Your task to perform on an android device: empty trash in google photos Image 0: 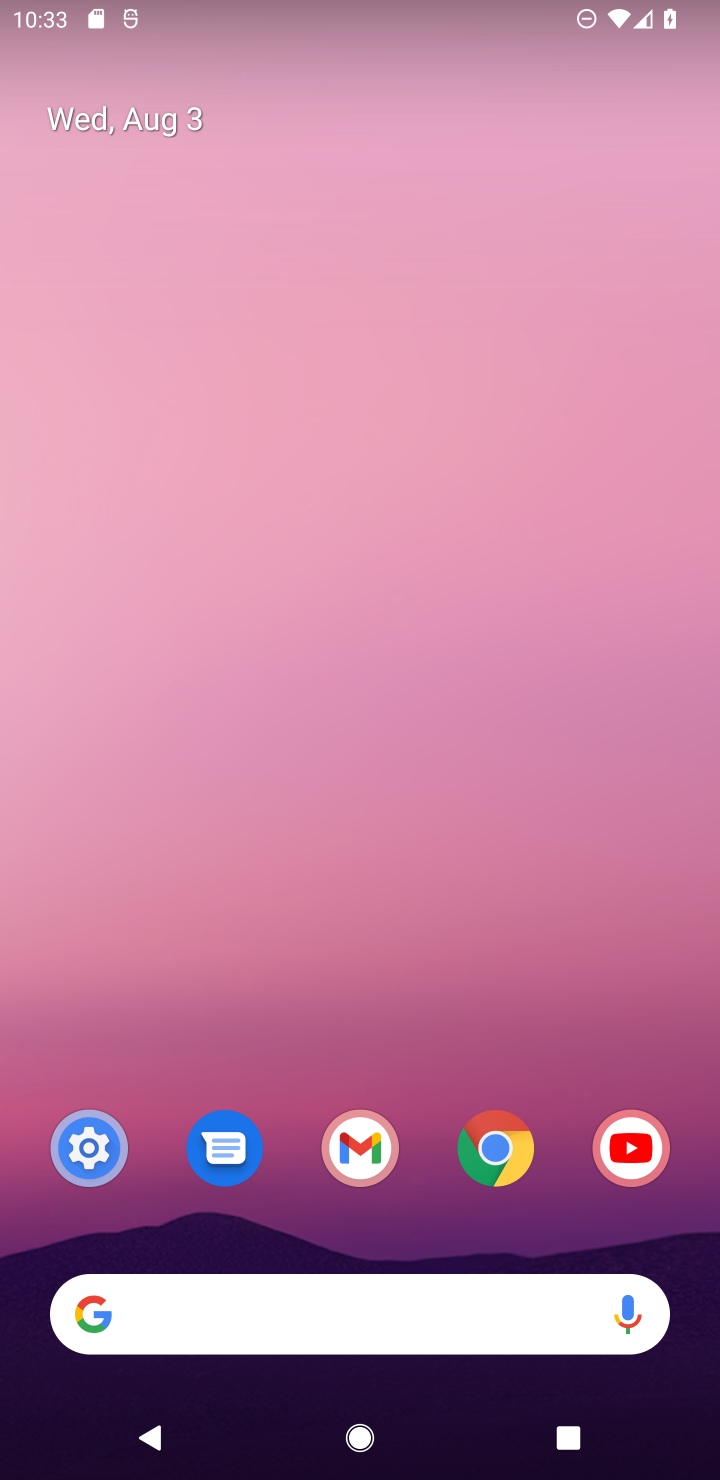
Step 0: drag from (514, 733) to (410, 124)
Your task to perform on an android device: empty trash in google photos Image 1: 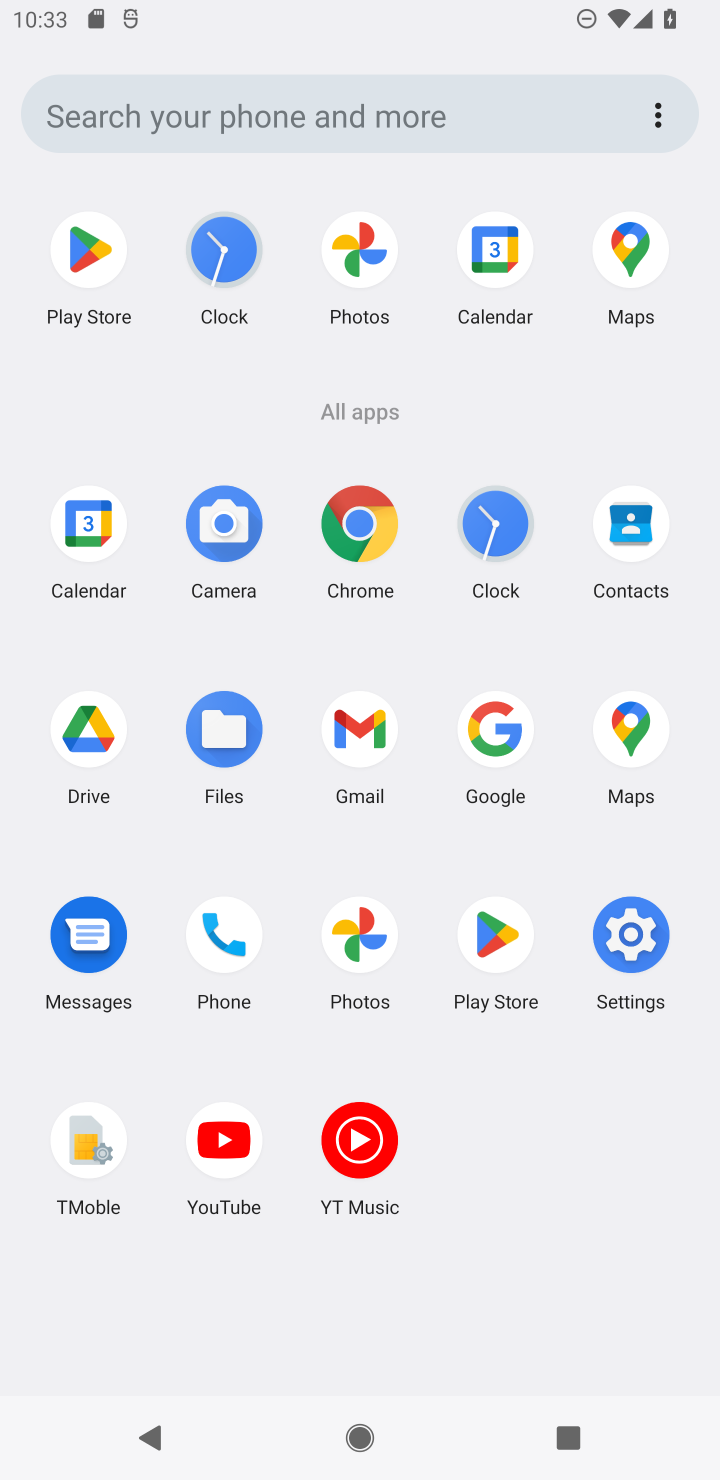
Step 1: click (374, 926)
Your task to perform on an android device: empty trash in google photos Image 2: 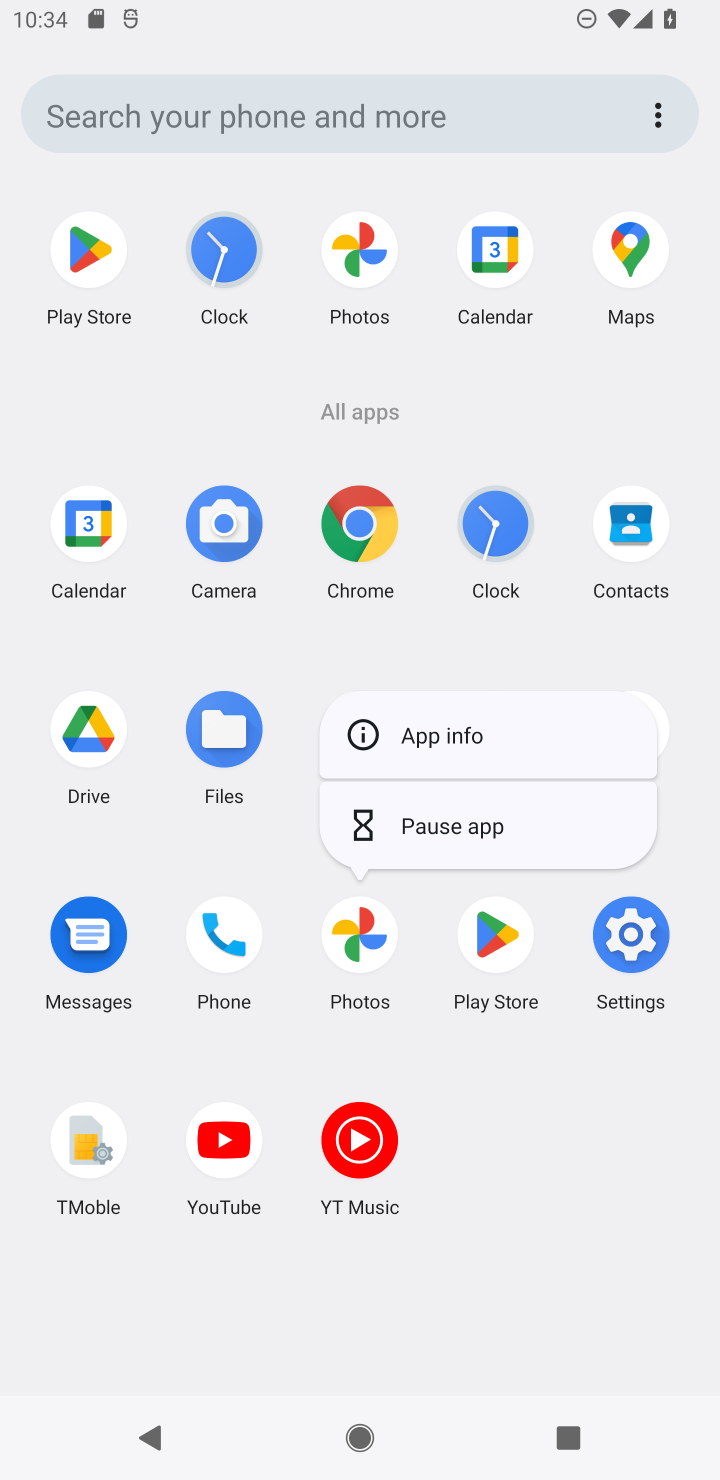
Step 2: click (350, 917)
Your task to perform on an android device: empty trash in google photos Image 3: 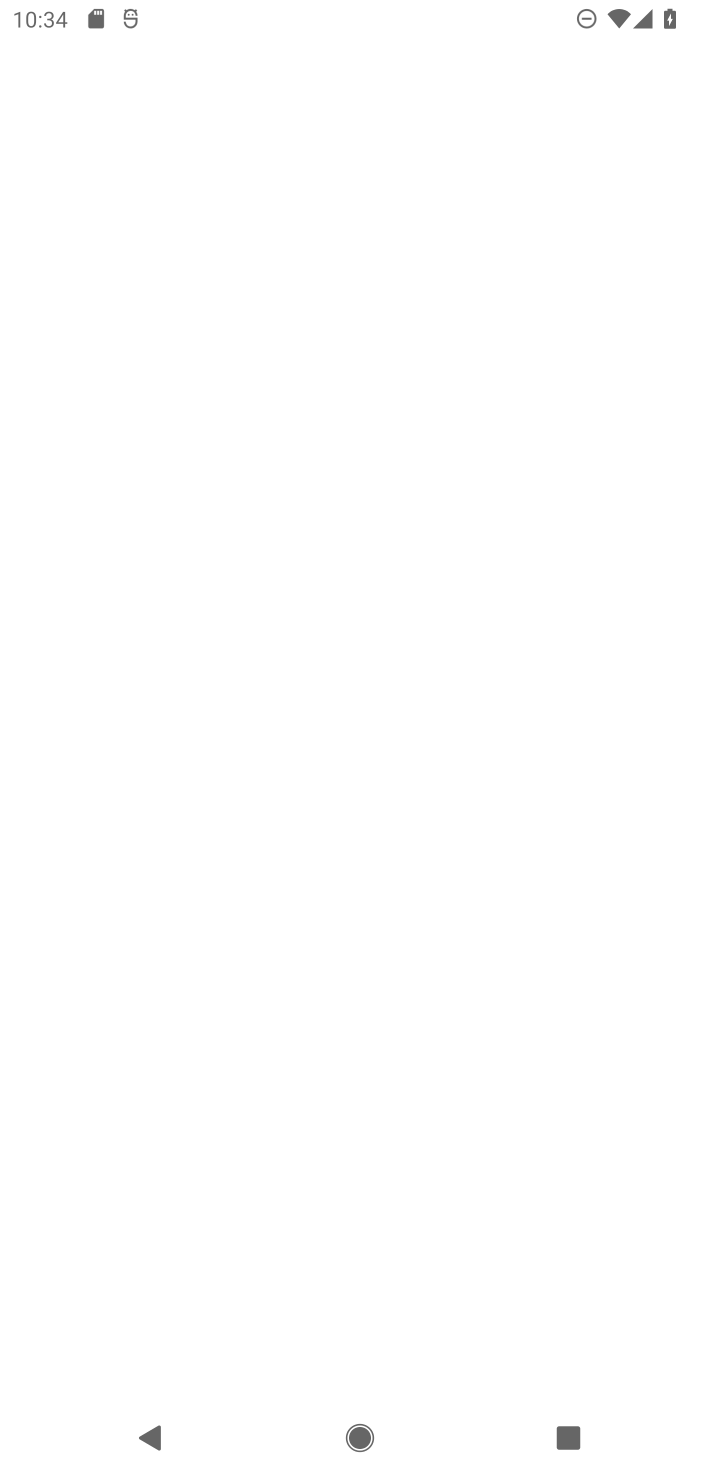
Step 3: task complete